Your task to perform on an android device: What is the news today? Image 0: 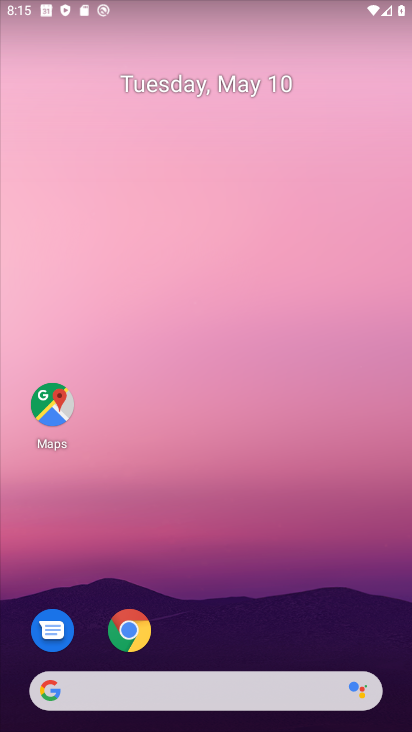
Step 0: click (294, 689)
Your task to perform on an android device: What is the news today? Image 1: 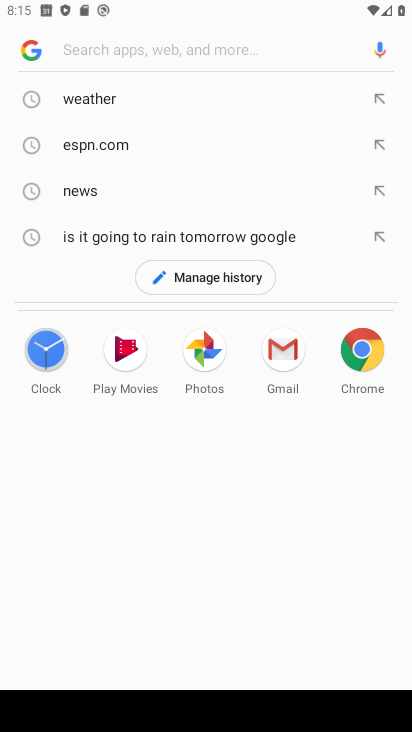
Step 1: type "news today"
Your task to perform on an android device: What is the news today? Image 2: 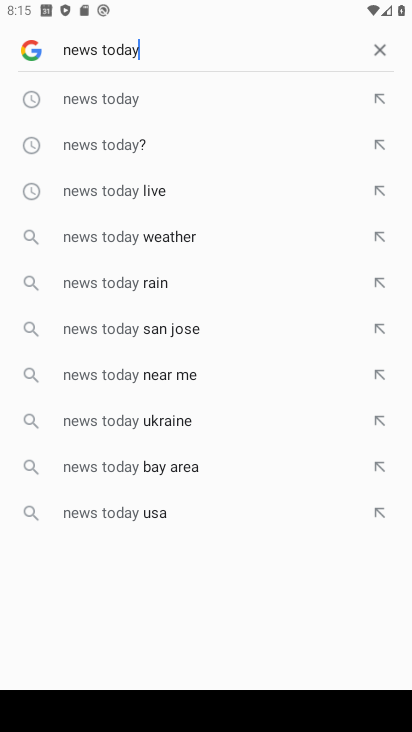
Step 2: click (198, 93)
Your task to perform on an android device: What is the news today? Image 3: 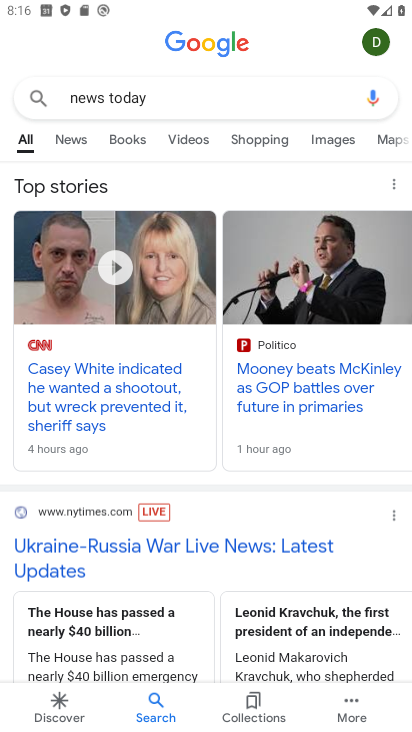
Step 3: task complete